Your task to perform on an android device: Open calendar and show me the third week of next month Image 0: 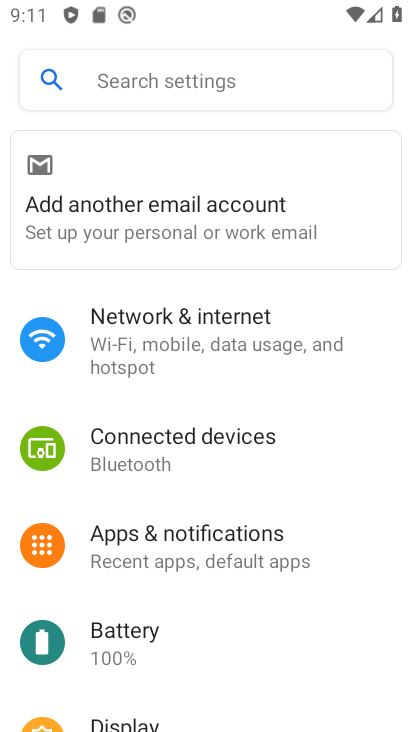
Step 0: press home button
Your task to perform on an android device: Open calendar and show me the third week of next month Image 1: 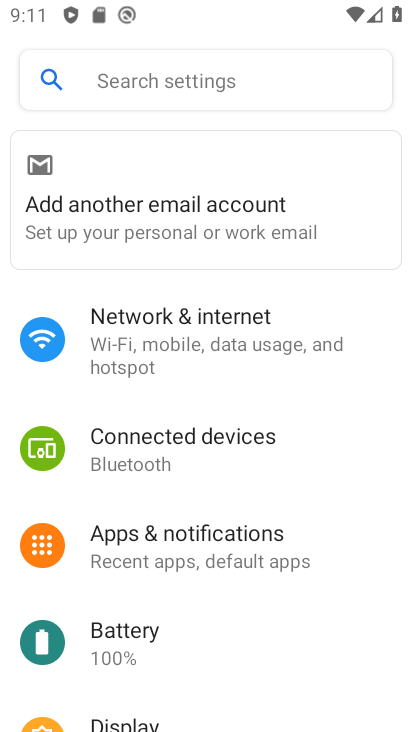
Step 1: press home button
Your task to perform on an android device: Open calendar and show me the third week of next month Image 2: 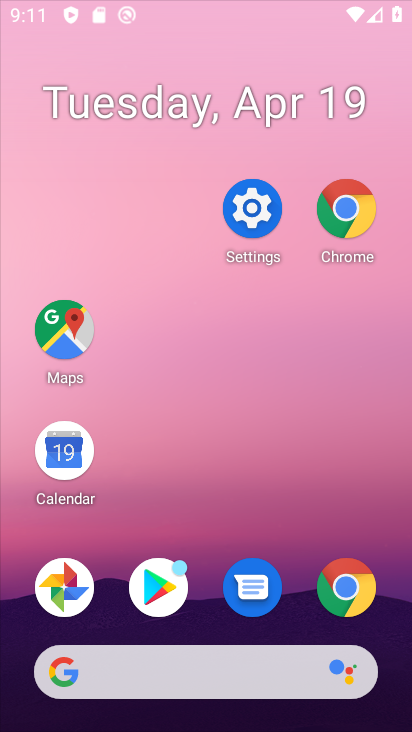
Step 2: press home button
Your task to perform on an android device: Open calendar and show me the third week of next month Image 3: 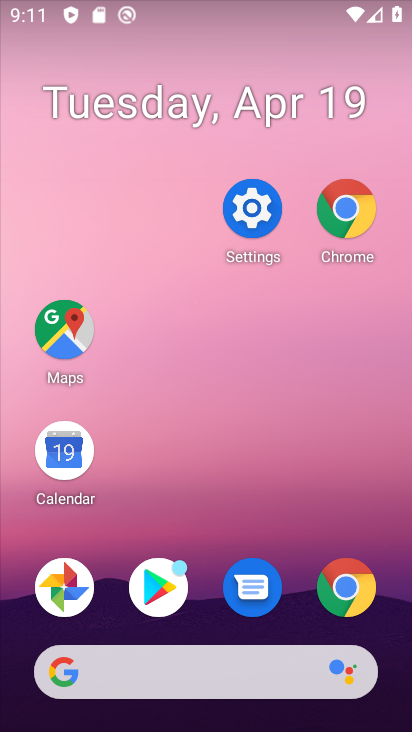
Step 3: press home button
Your task to perform on an android device: Open calendar and show me the third week of next month Image 4: 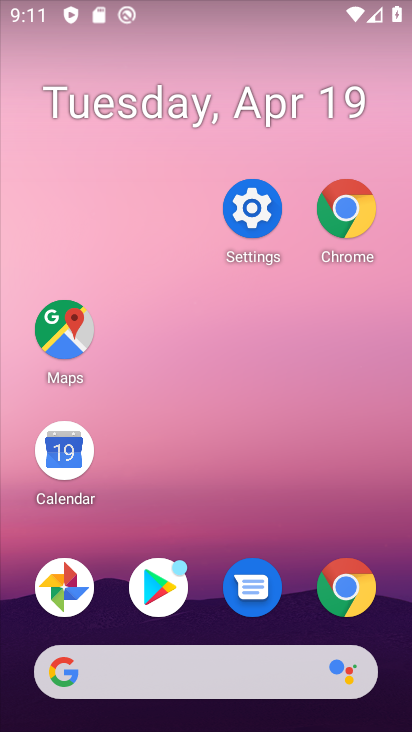
Step 4: drag from (288, 665) to (136, 0)
Your task to perform on an android device: Open calendar and show me the third week of next month Image 5: 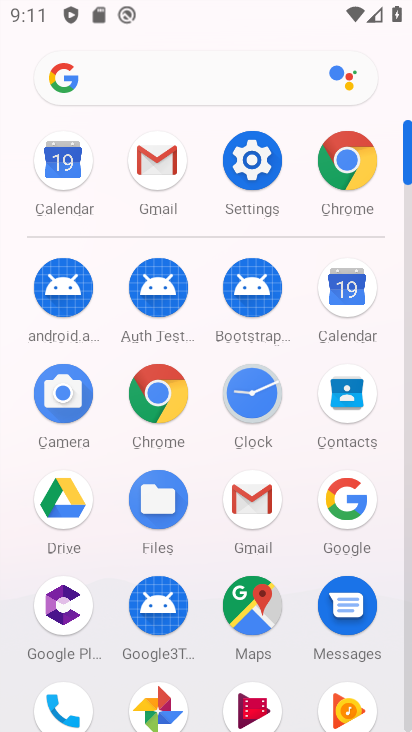
Step 5: click (345, 292)
Your task to perform on an android device: Open calendar and show me the third week of next month Image 6: 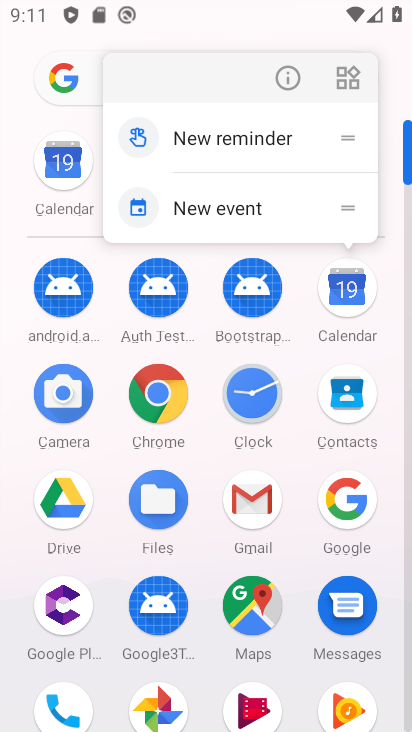
Step 6: click (350, 287)
Your task to perform on an android device: Open calendar and show me the third week of next month Image 7: 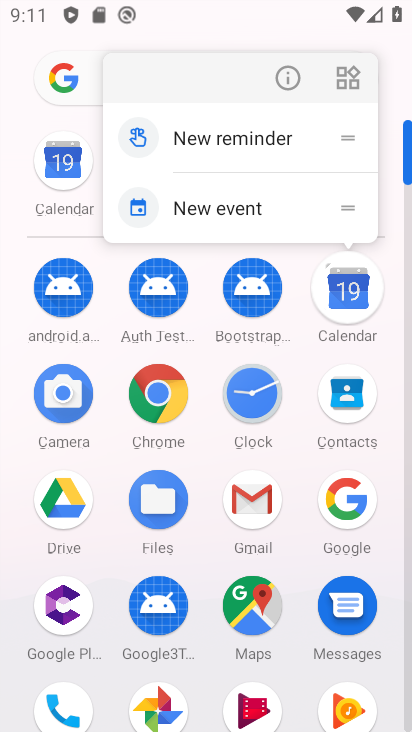
Step 7: click (350, 287)
Your task to perform on an android device: Open calendar and show me the third week of next month Image 8: 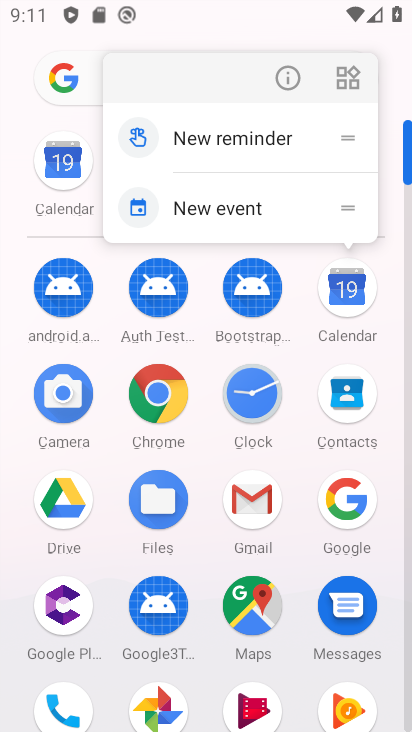
Step 8: click (351, 287)
Your task to perform on an android device: Open calendar and show me the third week of next month Image 9: 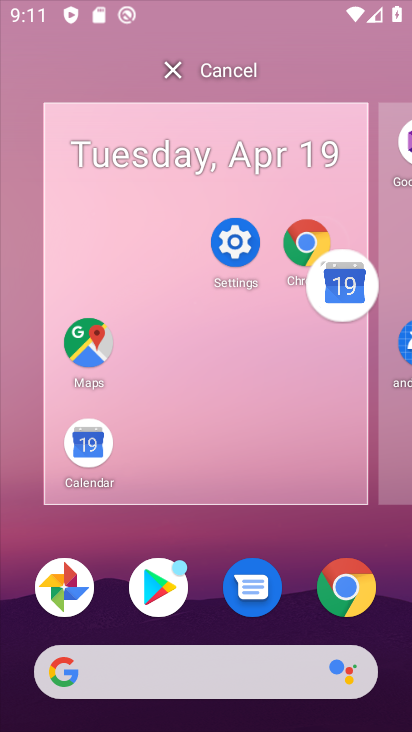
Step 9: click (345, 285)
Your task to perform on an android device: Open calendar and show me the third week of next month Image 10: 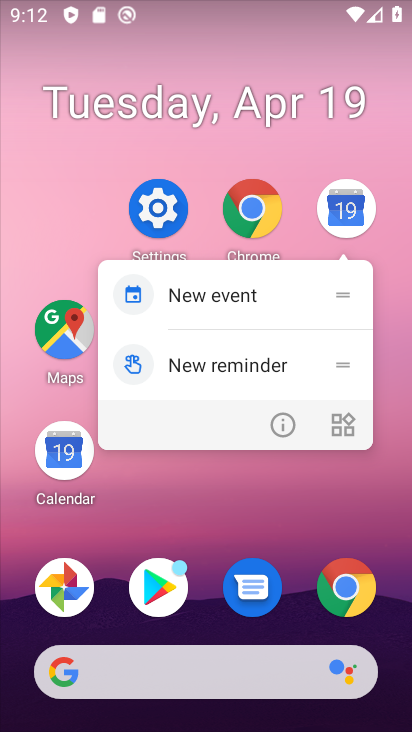
Step 10: click (361, 211)
Your task to perform on an android device: Open calendar and show me the third week of next month Image 11: 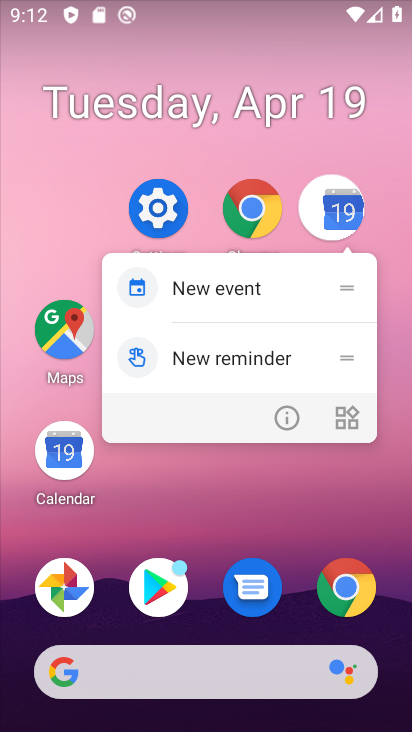
Step 11: click (346, 204)
Your task to perform on an android device: Open calendar and show me the third week of next month Image 12: 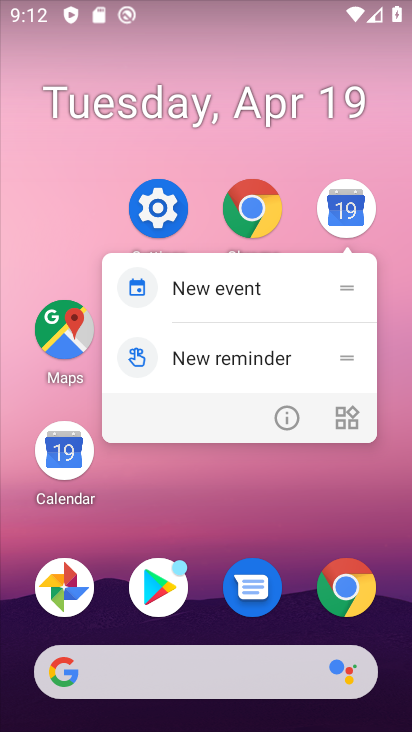
Step 12: click (346, 204)
Your task to perform on an android device: Open calendar and show me the third week of next month Image 13: 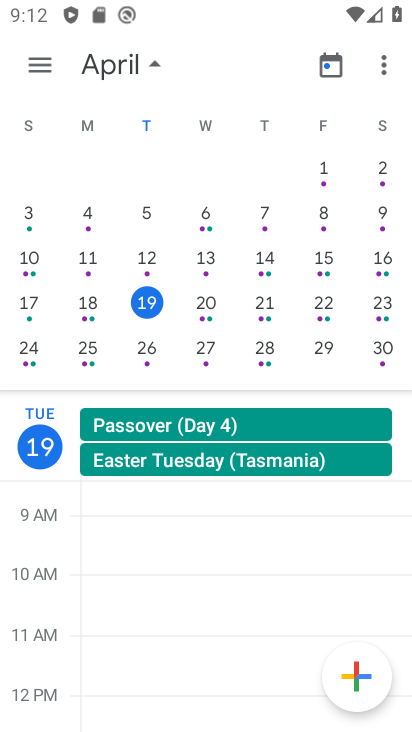
Step 13: drag from (117, 266) to (11, 281)
Your task to perform on an android device: Open calendar and show me the third week of next month Image 14: 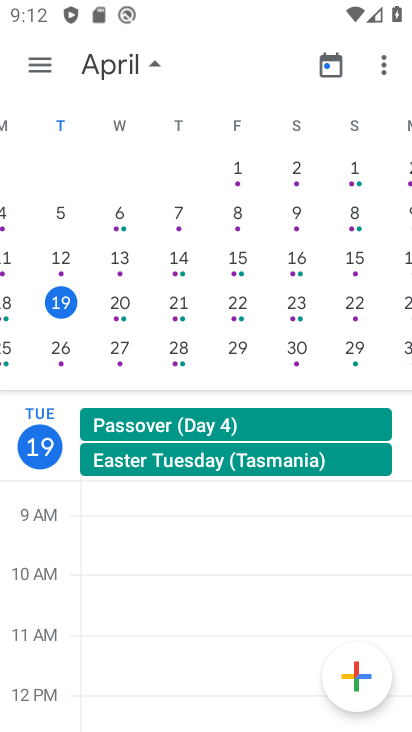
Step 14: drag from (170, 324) to (60, 323)
Your task to perform on an android device: Open calendar and show me the third week of next month Image 15: 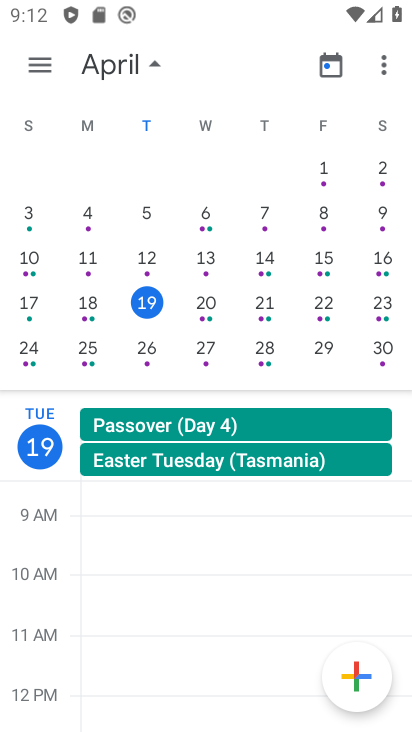
Step 15: drag from (276, 337) to (4, 291)
Your task to perform on an android device: Open calendar and show me the third week of next month Image 16: 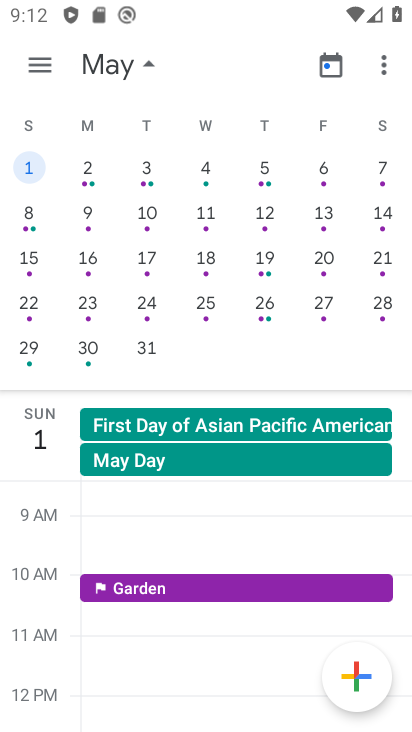
Step 16: drag from (158, 311) to (23, 283)
Your task to perform on an android device: Open calendar and show me the third week of next month Image 17: 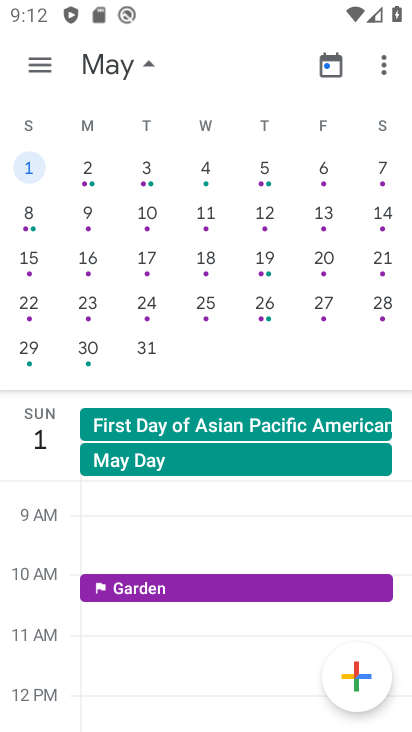
Step 17: click (91, 257)
Your task to perform on an android device: Open calendar and show me the third week of next month Image 18: 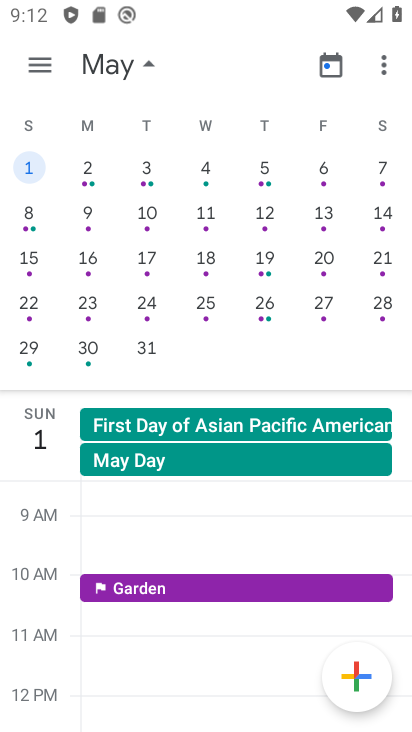
Step 18: click (91, 257)
Your task to perform on an android device: Open calendar and show me the third week of next month Image 19: 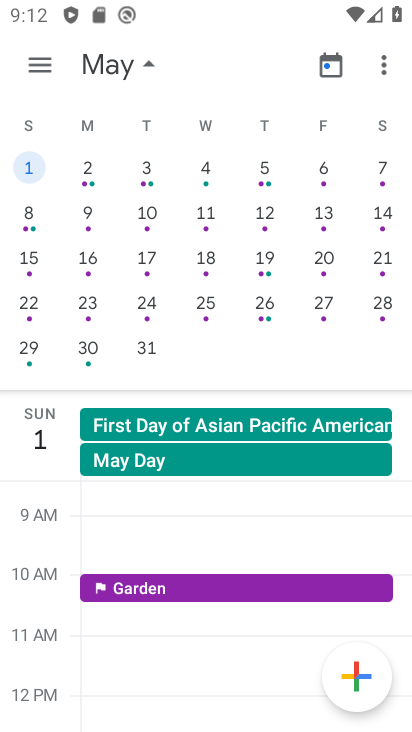
Step 19: click (91, 257)
Your task to perform on an android device: Open calendar and show me the third week of next month Image 20: 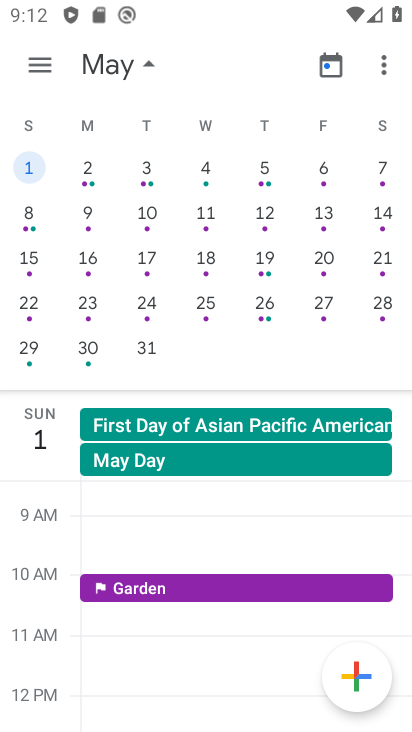
Step 20: click (87, 249)
Your task to perform on an android device: Open calendar and show me the third week of next month Image 21: 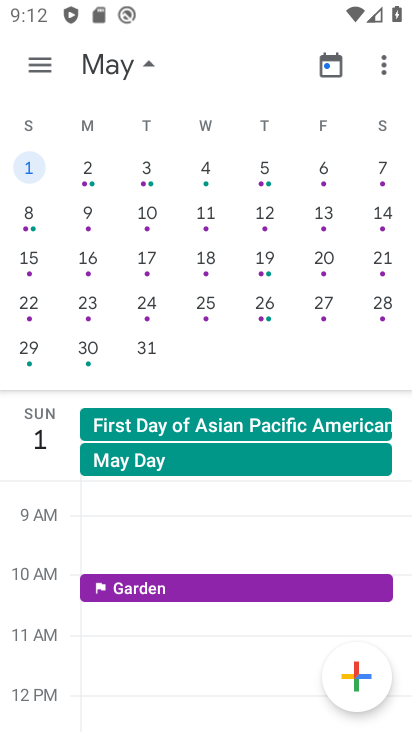
Step 21: click (88, 253)
Your task to perform on an android device: Open calendar and show me the third week of next month Image 22: 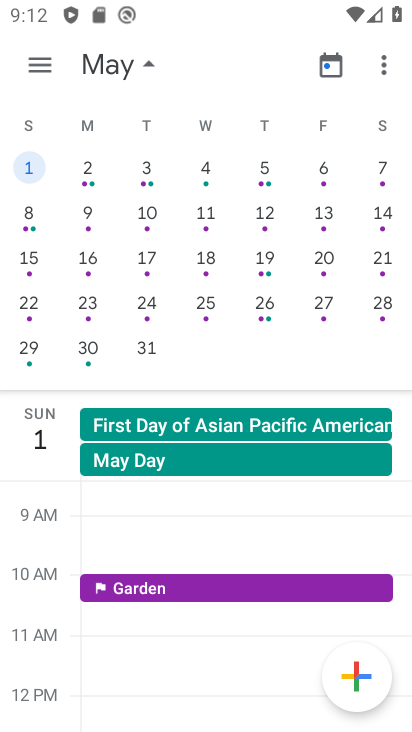
Step 22: click (90, 258)
Your task to perform on an android device: Open calendar and show me the third week of next month Image 23: 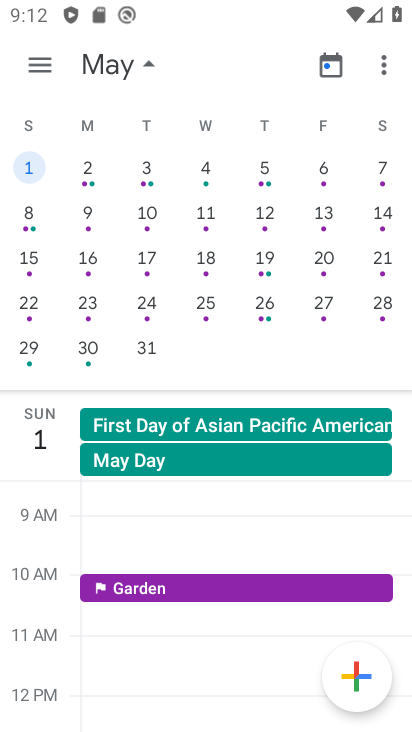
Step 23: click (77, 246)
Your task to perform on an android device: Open calendar and show me the third week of next month Image 24: 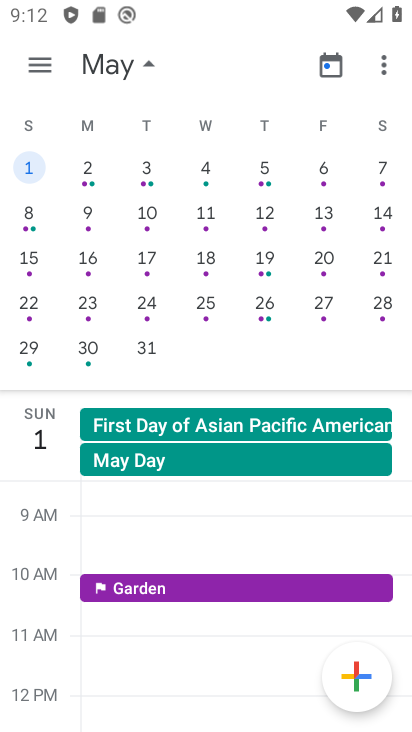
Step 24: click (85, 248)
Your task to perform on an android device: Open calendar and show me the third week of next month Image 25: 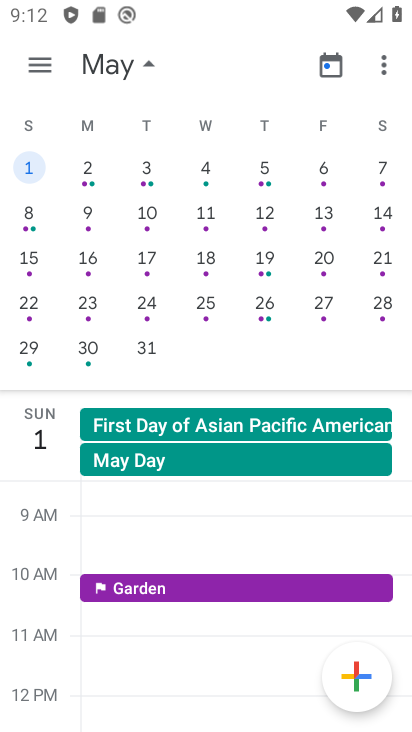
Step 25: click (91, 255)
Your task to perform on an android device: Open calendar and show me the third week of next month Image 26: 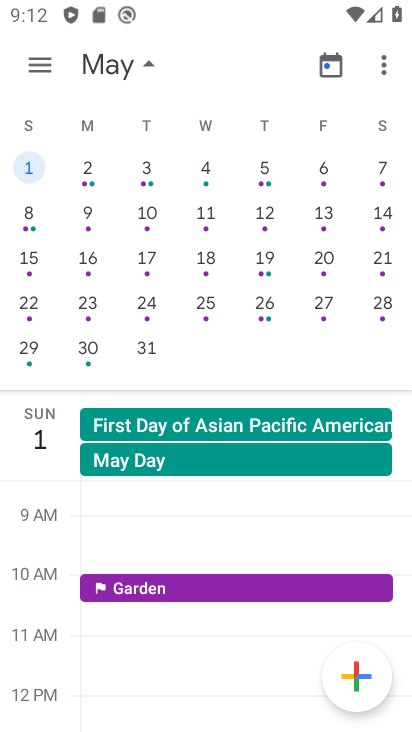
Step 26: click (91, 255)
Your task to perform on an android device: Open calendar and show me the third week of next month Image 27: 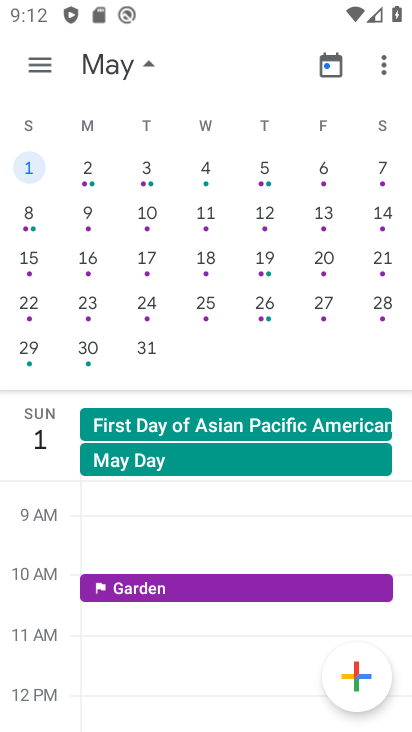
Step 27: click (91, 255)
Your task to perform on an android device: Open calendar and show me the third week of next month Image 28: 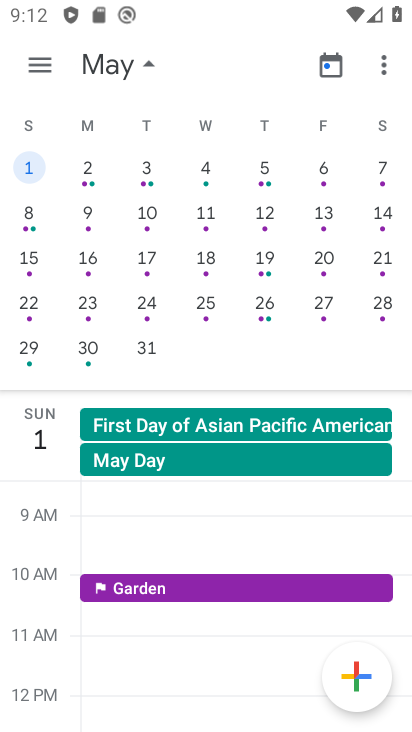
Step 28: click (86, 255)
Your task to perform on an android device: Open calendar and show me the third week of next month Image 29: 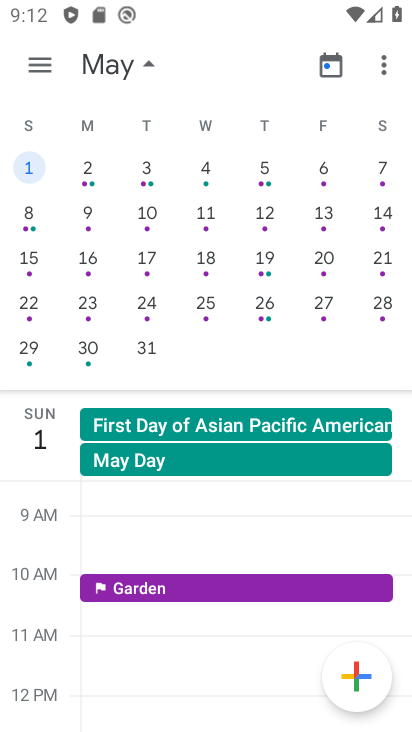
Step 29: click (86, 252)
Your task to perform on an android device: Open calendar and show me the third week of next month Image 30: 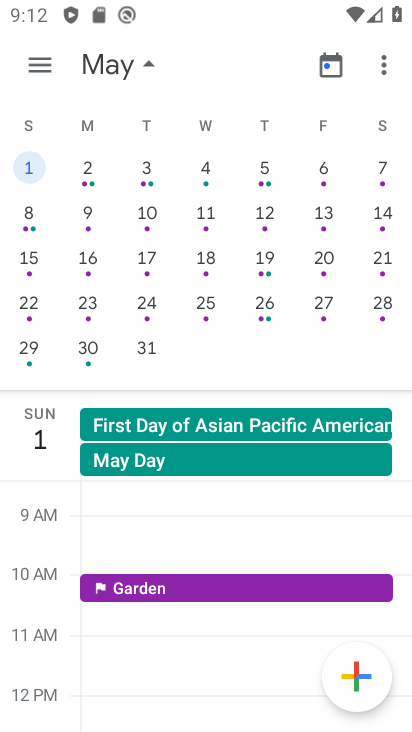
Step 30: click (100, 291)
Your task to perform on an android device: Open calendar and show me the third week of next month Image 31: 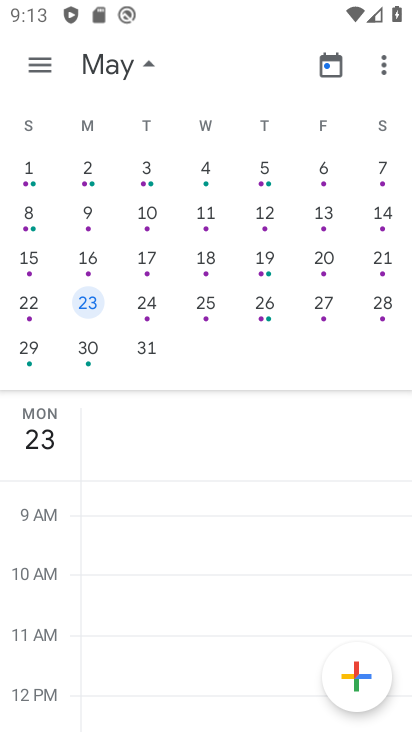
Step 31: click (81, 244)
Your task to perform on an android device: Open calendar and show me the third week of next month Image 32: 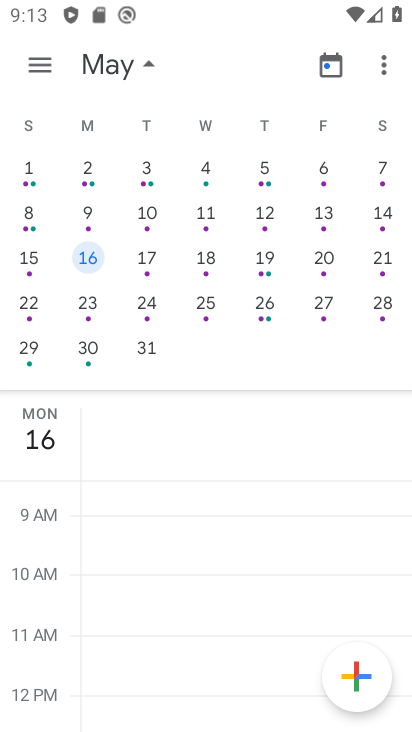
Step 32: task complete